Your task to perform on an android device: Go to battery settings Image 0: 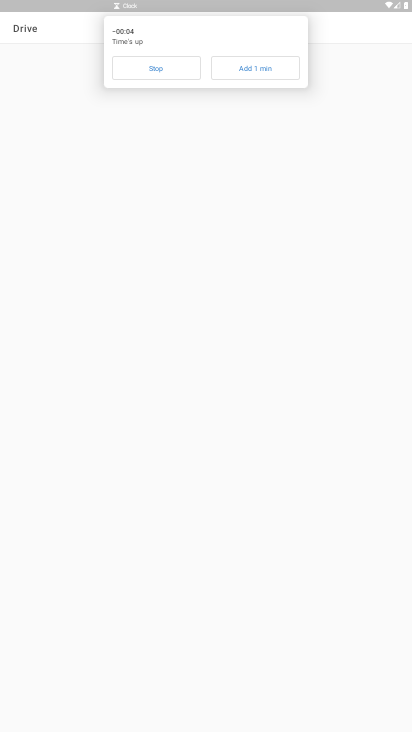
Step 0: click (157, 61)
Your task to perform on an android device: Go to battery settings Image 1: 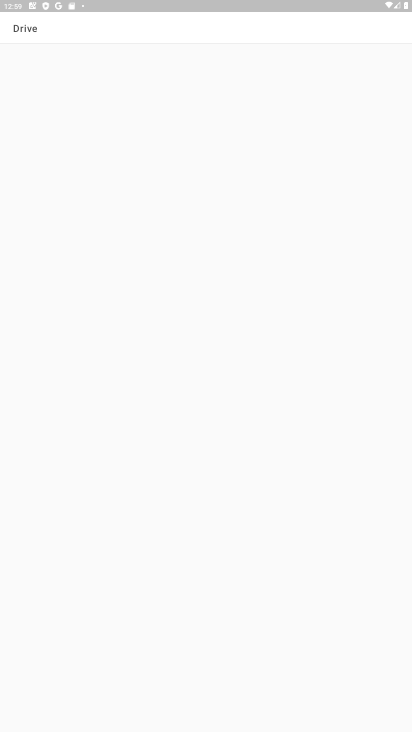
Step 1: press home button
Your task to perform on an android device: Go to battery settings Image 2: 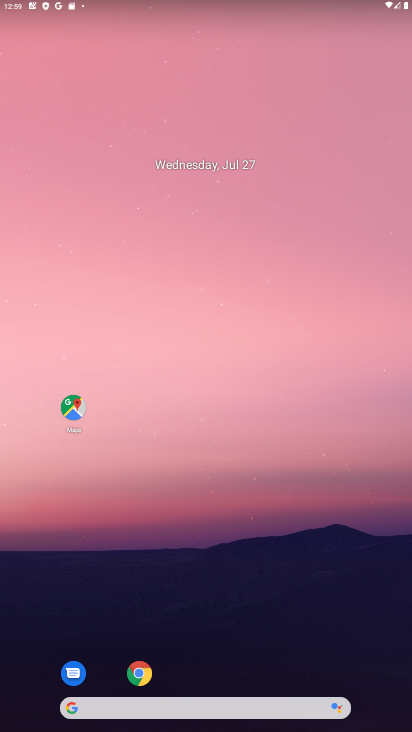
Step 2: drag from (206, 666) to (177, 28)
Your task to perform on an android device: Go to battery settings Image 3: 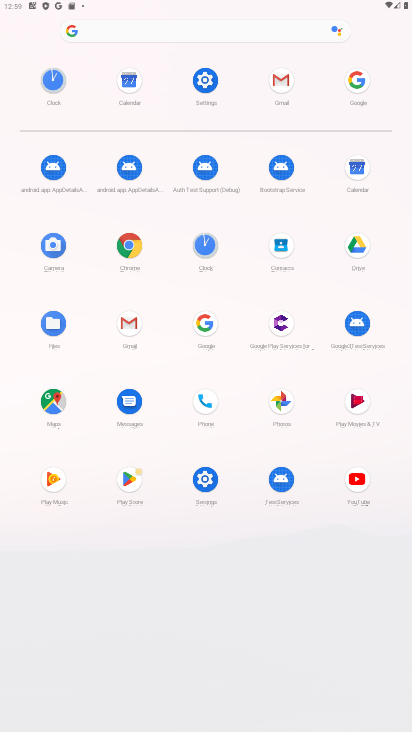
Step 3: click (202, 88)
Your task to perform on an android device: Go to battery settings Image 4: 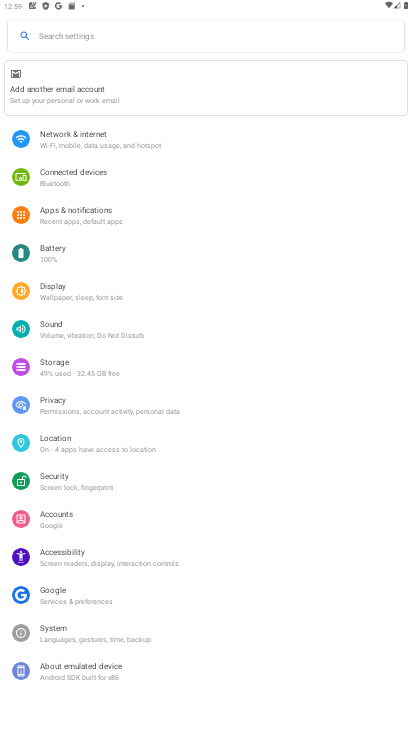
Step 4: click (48, 255)
Your task to perform on an android device: Go to battery settings Image 5: 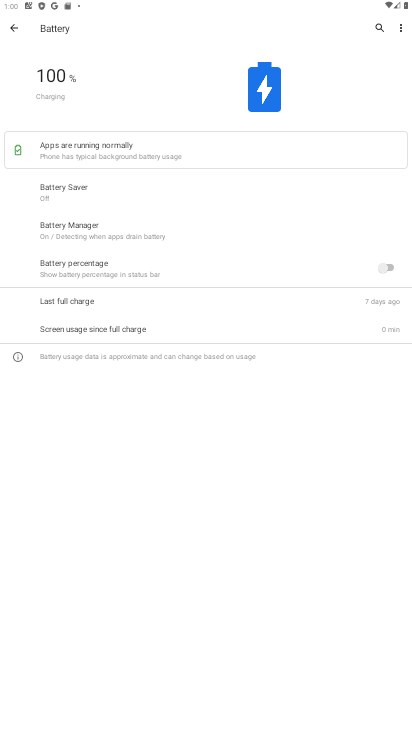
Step 5: task complete